Your task to perform on an android device: Go to battery settings Image 0: 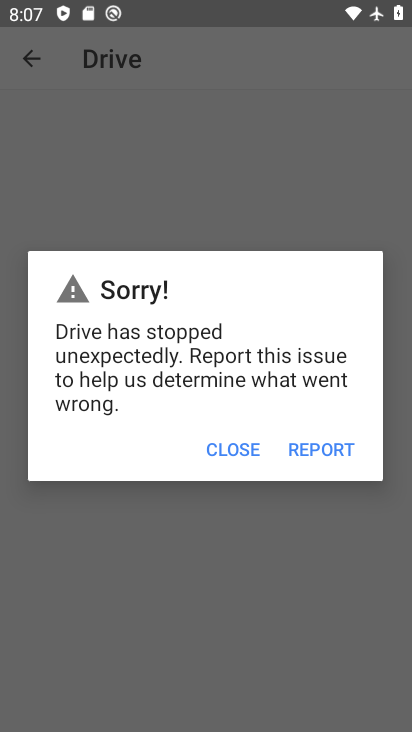
Step 0: press home button
Your task to perform on an android device: Go to battery settings Image 1: 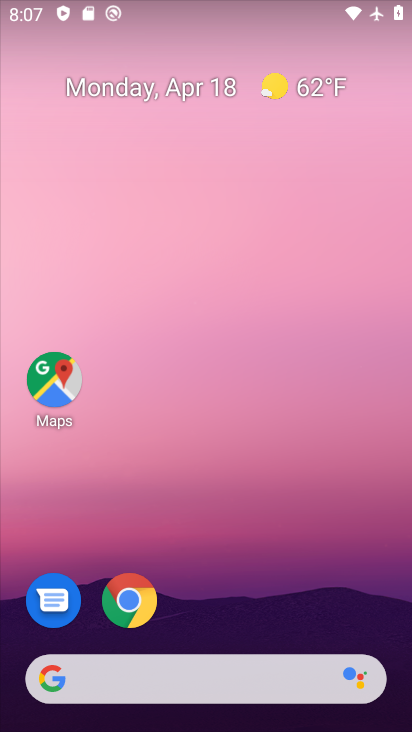
Step 1: drag from (204, 637) to (141, 0)
Your task to perform on an android device: Go to battery settings Image 2: 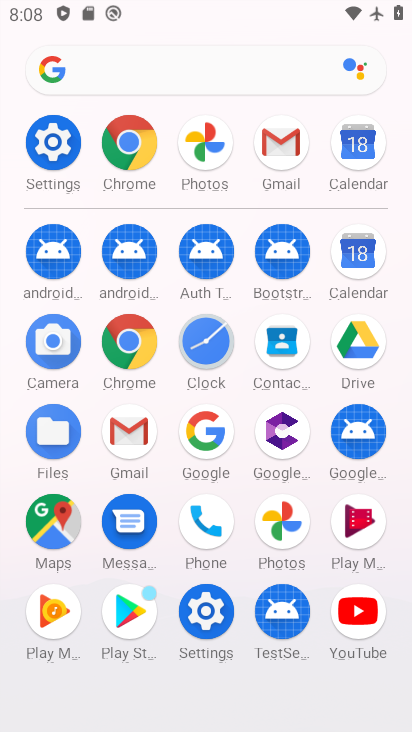
Step 2: click (213, 604)
Your task to perform on an android device: Go to battery settings Image 3: 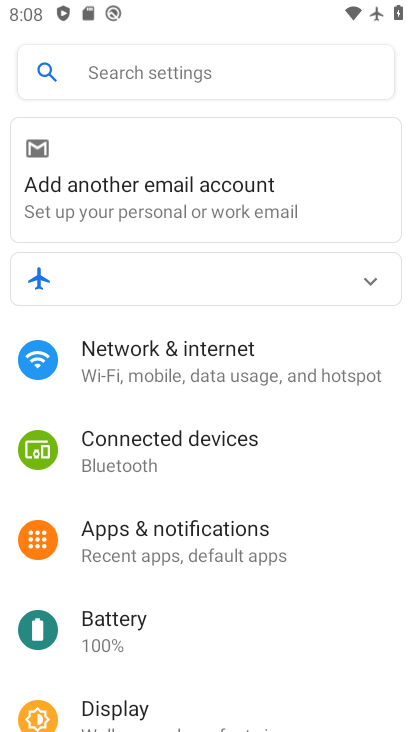
Step 3: click (170, 619)
Your task to perform on an android device: Go to battery settings Image 4: 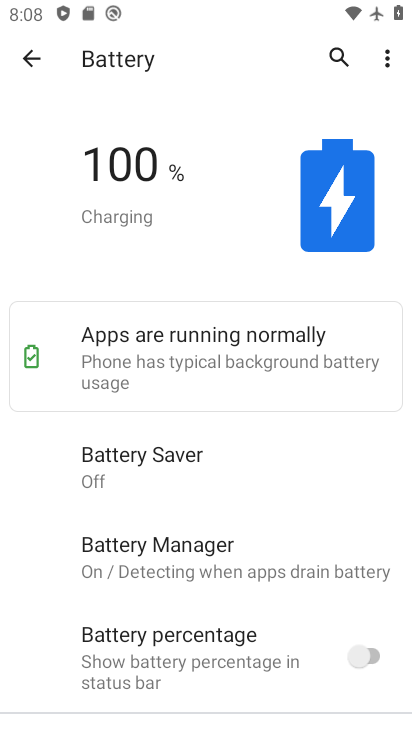
Step 4: task complete